Your task to perform on an android device: turn off airplane mode Image 0: 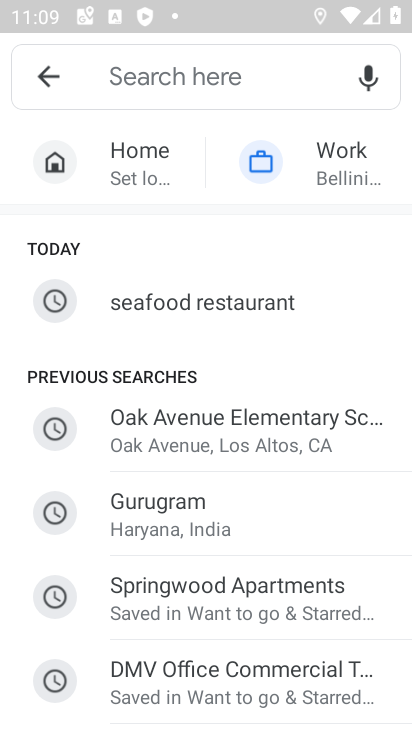
Step 0: press home button
Your task to perform on an android device: turn off airplane mode Image 1: 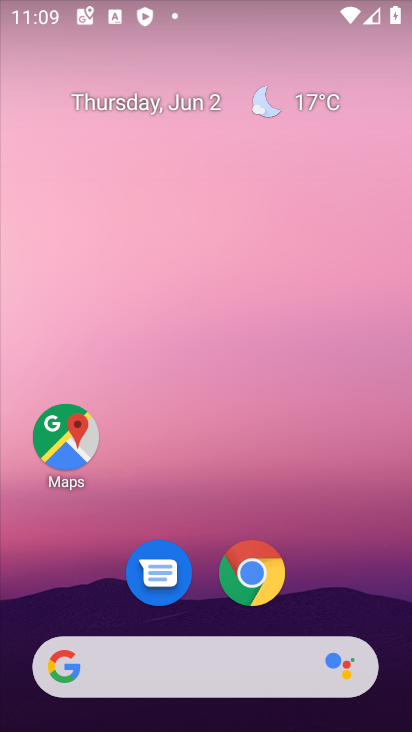
Step 1: drag from (350, 516) to (271, 1)
Your task to perform on an android device: turn off airplane mode Image 2: 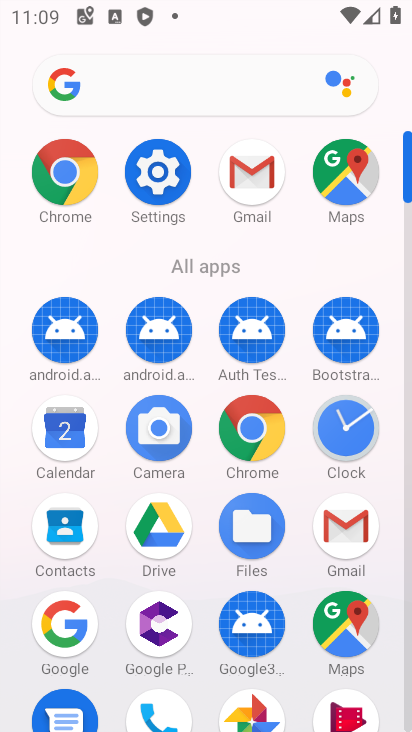
Step 2: click (158, 189)
Your task to perform on an android device: turn off airplane mode Image 3: 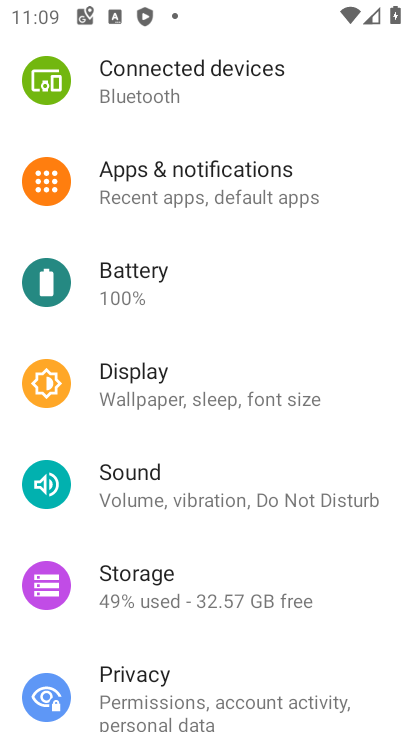
Step 3: drag from (185, 207) to (164, 718)
Your task to perform on an android device: turn off airplane mode Image 4: 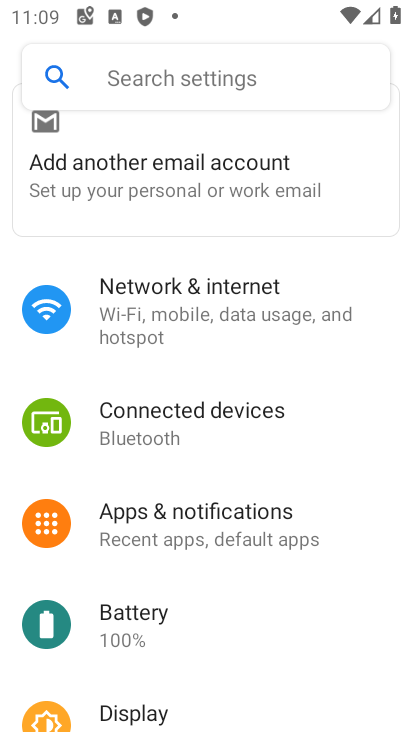
Step 4: drag from (191, 144) to (183, 573)
Your task to perform on an android device: turn off airplane mode Image 5: 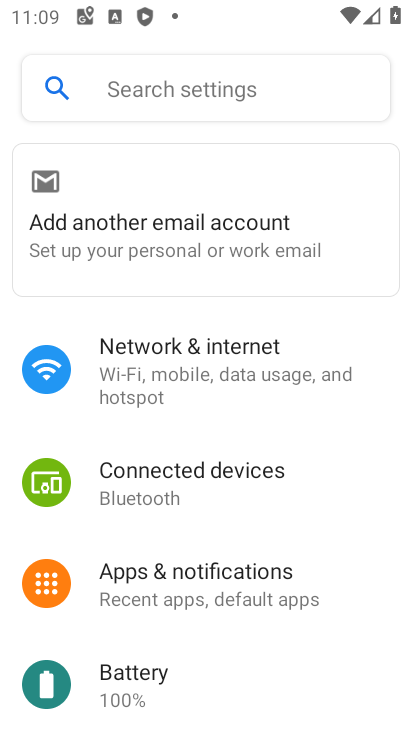
Step 5: click (194, 356)
Your task to perform on an android device: turn off airplane mode Image 6: 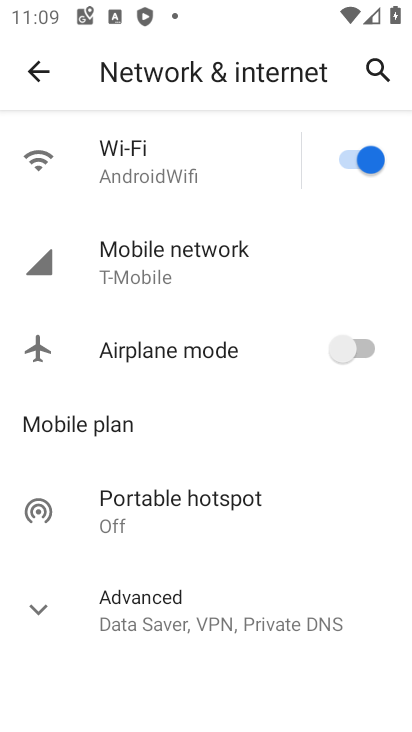
Step 6: task complete